Your task to perform on an android device: Search for the new ikea dresser Image 0: 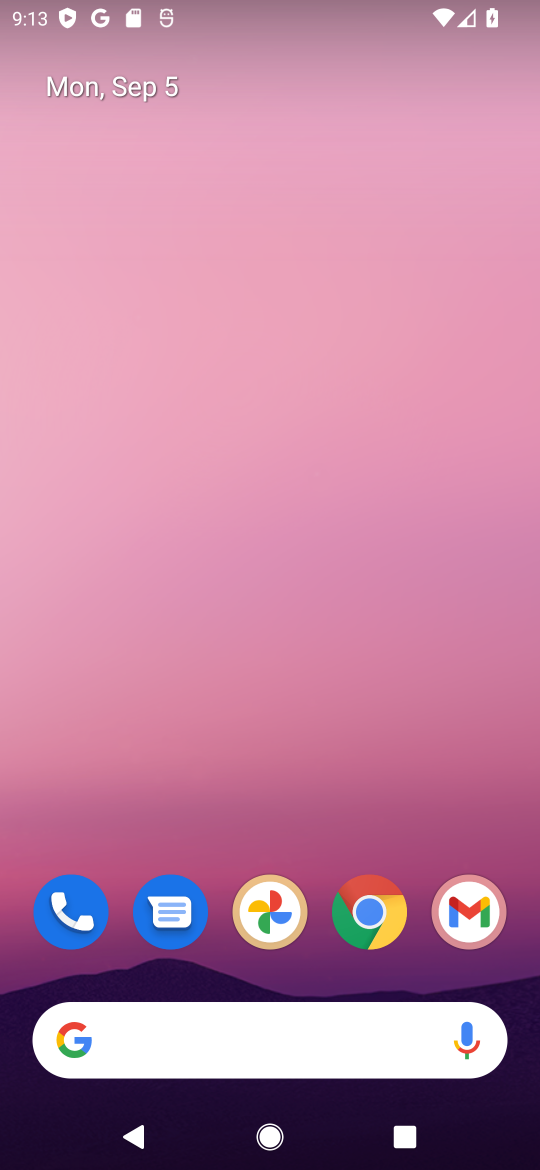
Step 0: click (368, 930)
Your task to perform on an android device: Search for the new ikea dresser Image 1: 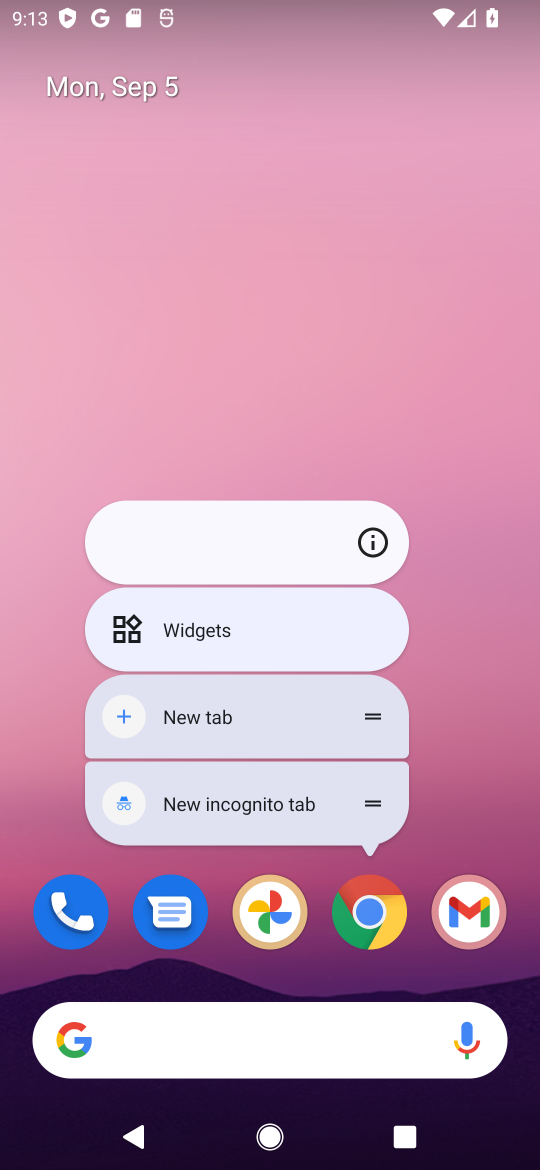
Step 1: click (381, 920)
Your task to perform on an android device: Search for the new ikea dresser Image 2: 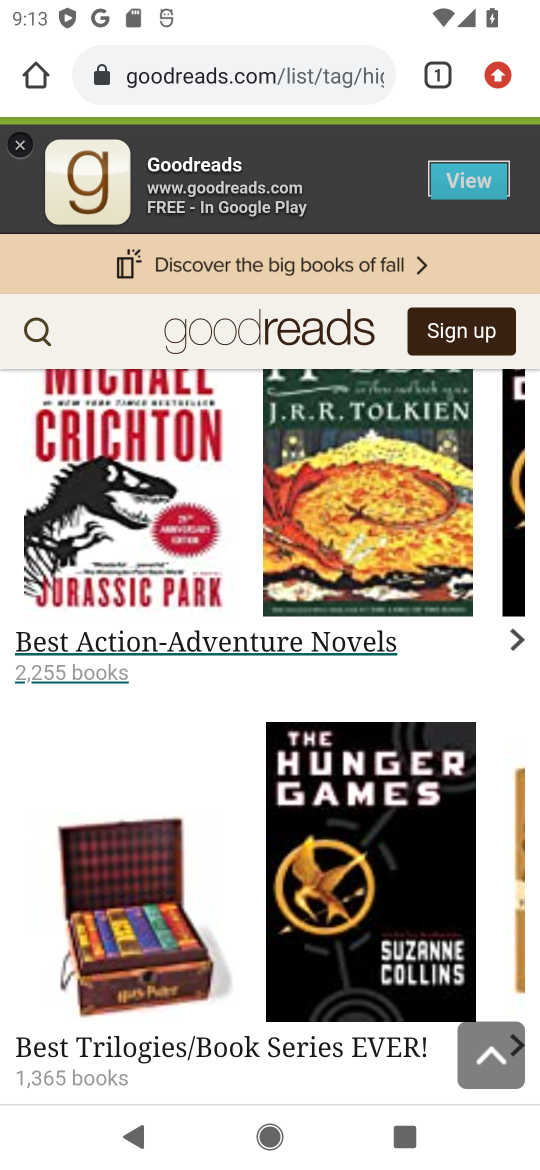
Step 2: click (263, 82)
Your task to perform on an android device: Search for the new ikea dresser Image 3: 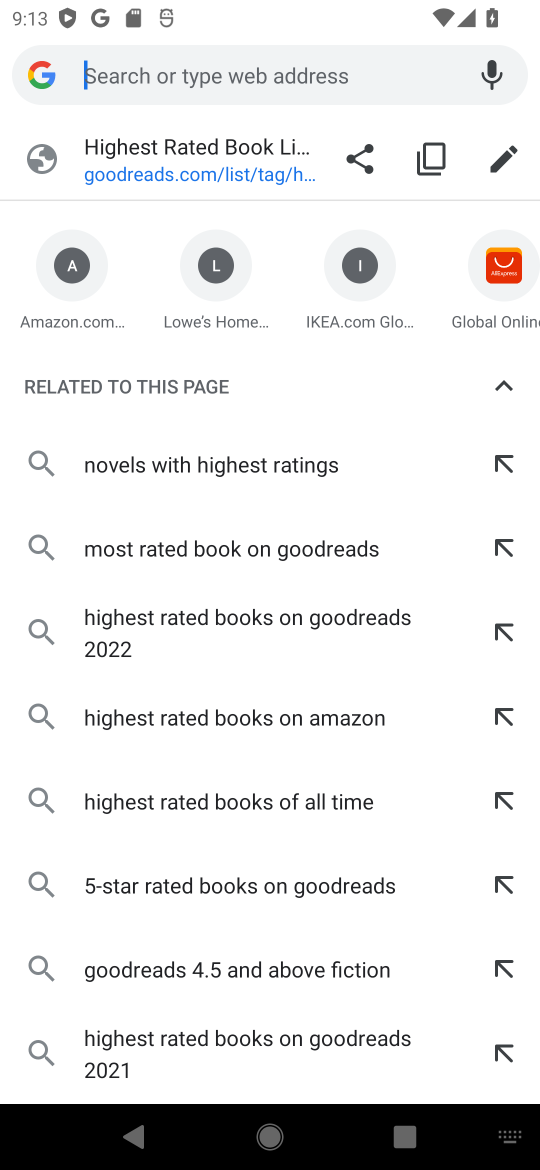
Step 3: type "new ikea dresser"
Your task to perform on an android device: Search for the new ikea dresser Image 4: 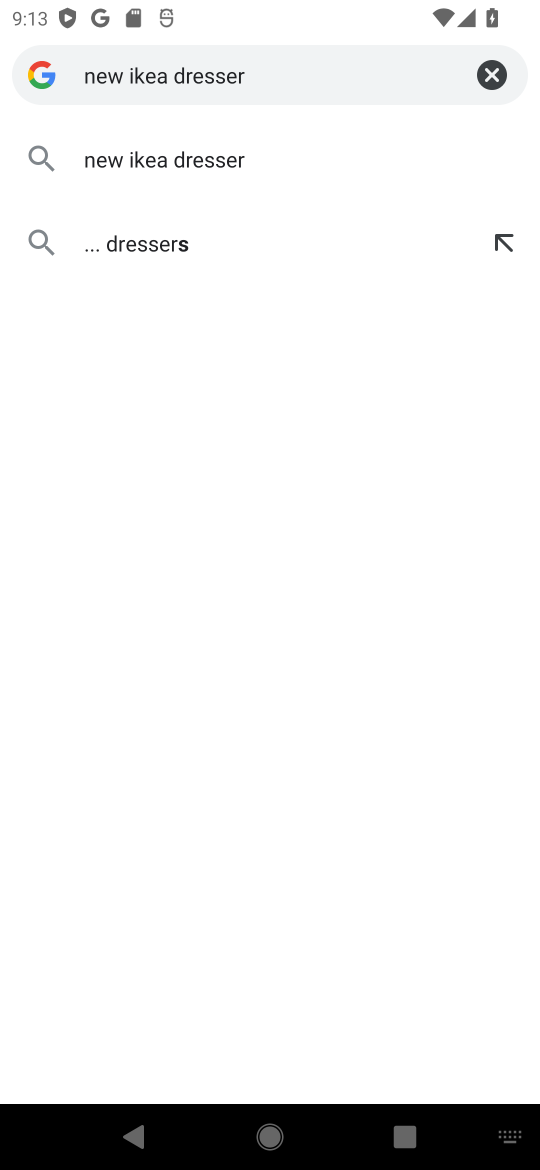
Step 4: press enter
Your task to perform on an android device: Search for the new ikea dresser Image 5: 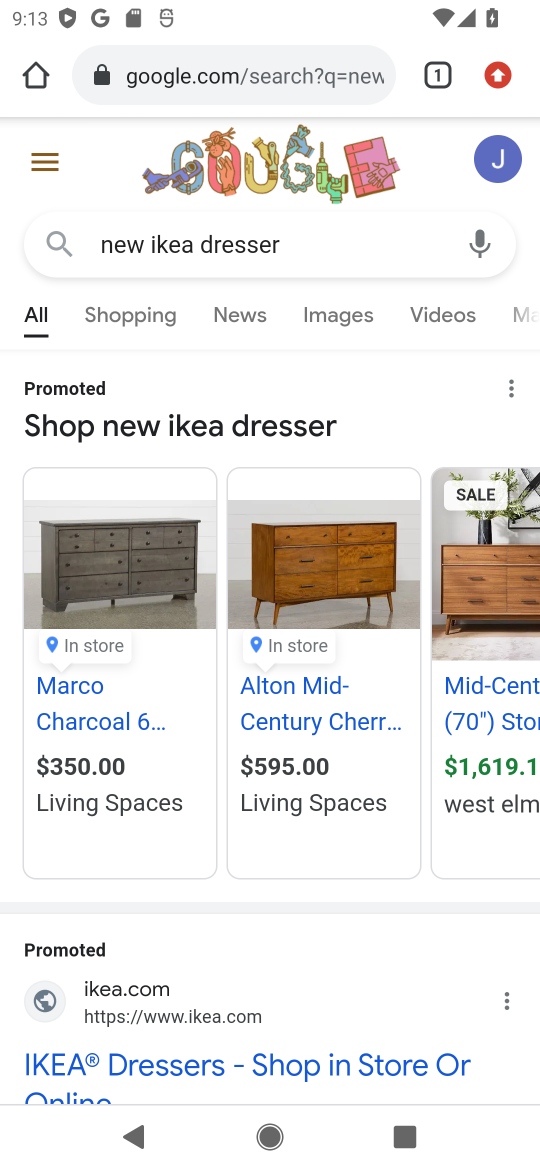
Step 5: drag from (390, 926) to (409, 681)
Your task to perform on an android device: Search for the new ikea dresser Image 6: 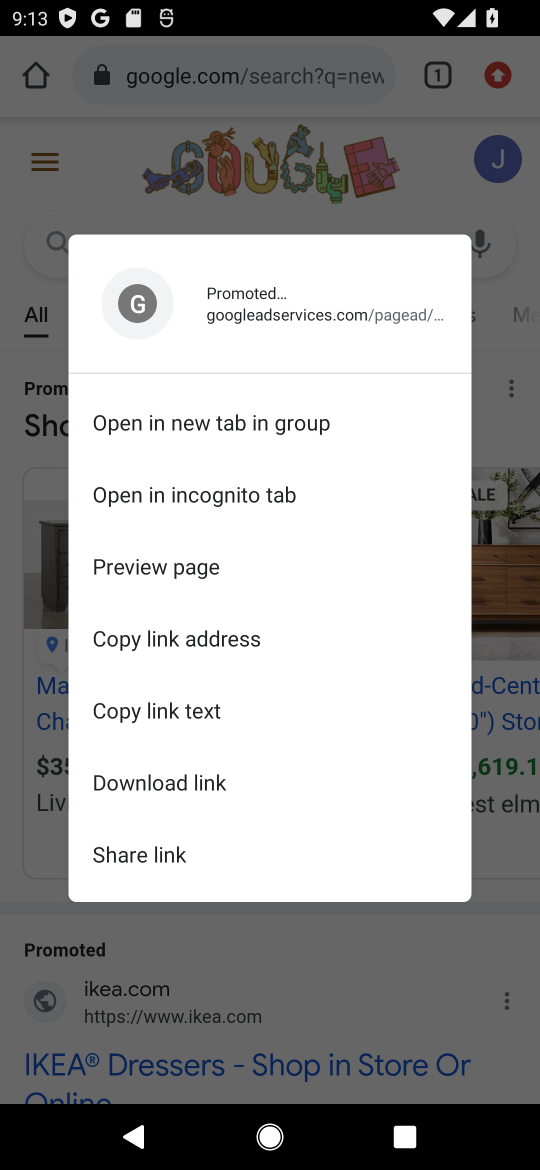
Step 6: click (480, 918)
Your task to perform on an android device: Search for the new ikea dresser Image 7: 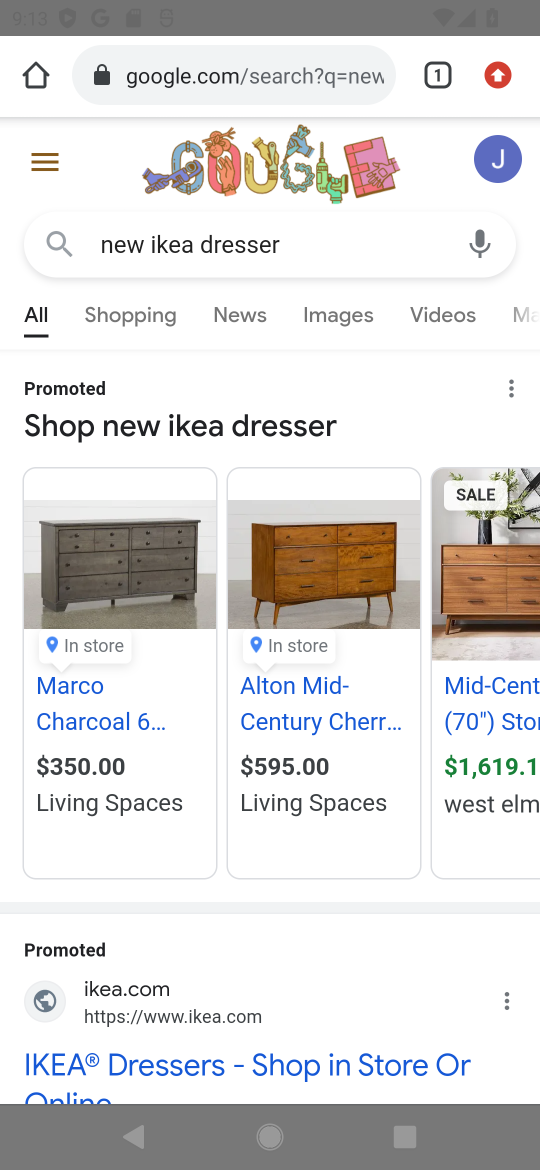
Step 7: drag from (429, 939) to (459, 380)
Your task to perform on an android device: Search for the new ikea dresser Image 8: 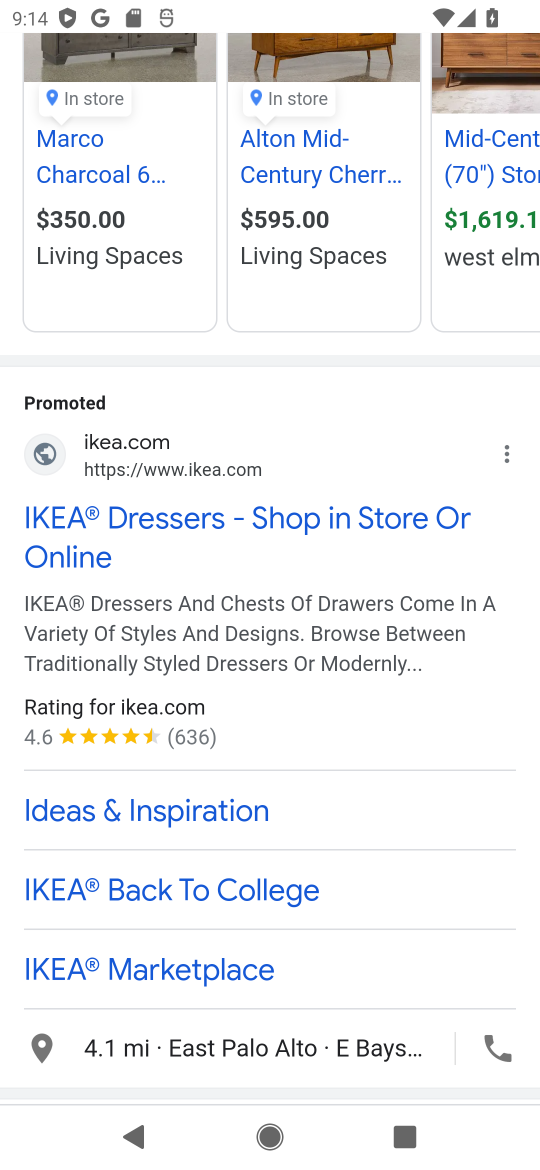
Step 8: click (327, 514)
Your task to perform on an android device: Search for the new ikea dresser Image 9: 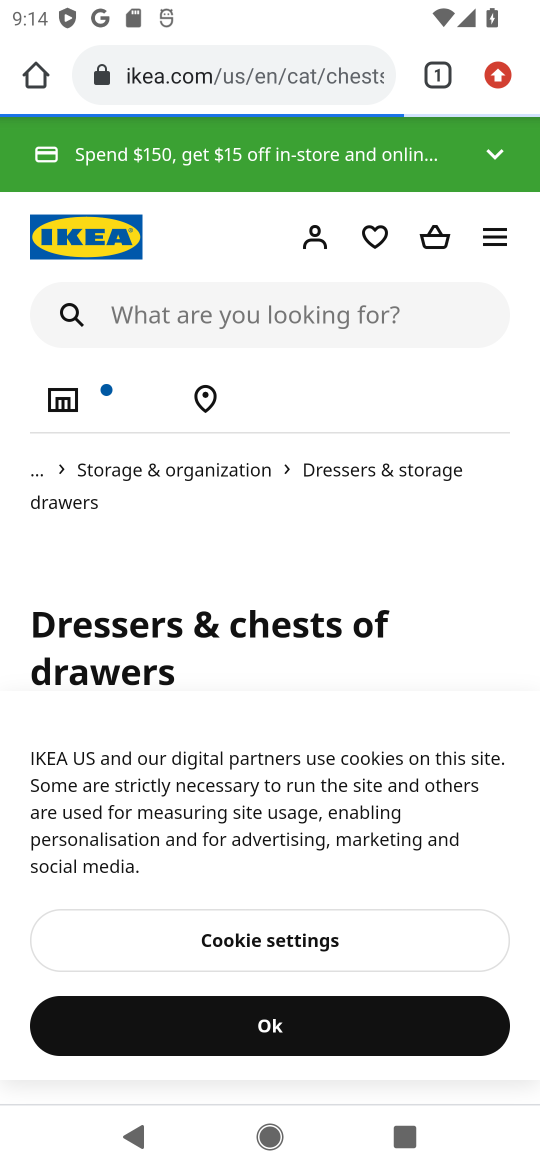
Step 9: drag from (291, 531) to (291, 404)
Your task to perform on an android device: Search for the new ikea dresser Image 10: 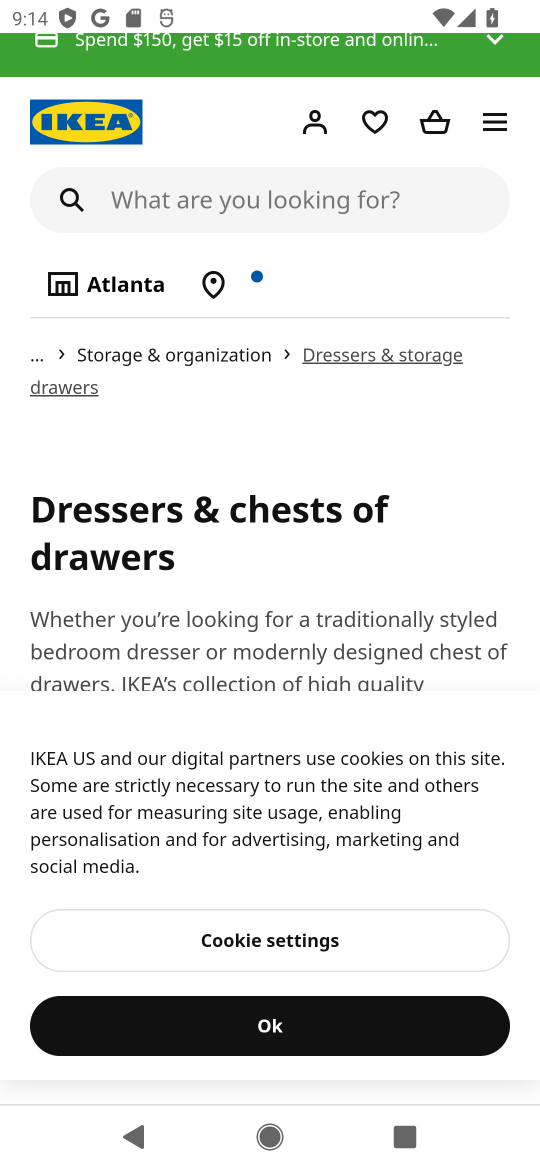
Step 10: drag from (300, 848) to (323, 427)
Your task to perform on an android device: Search for the new ikea dresser Image 11: 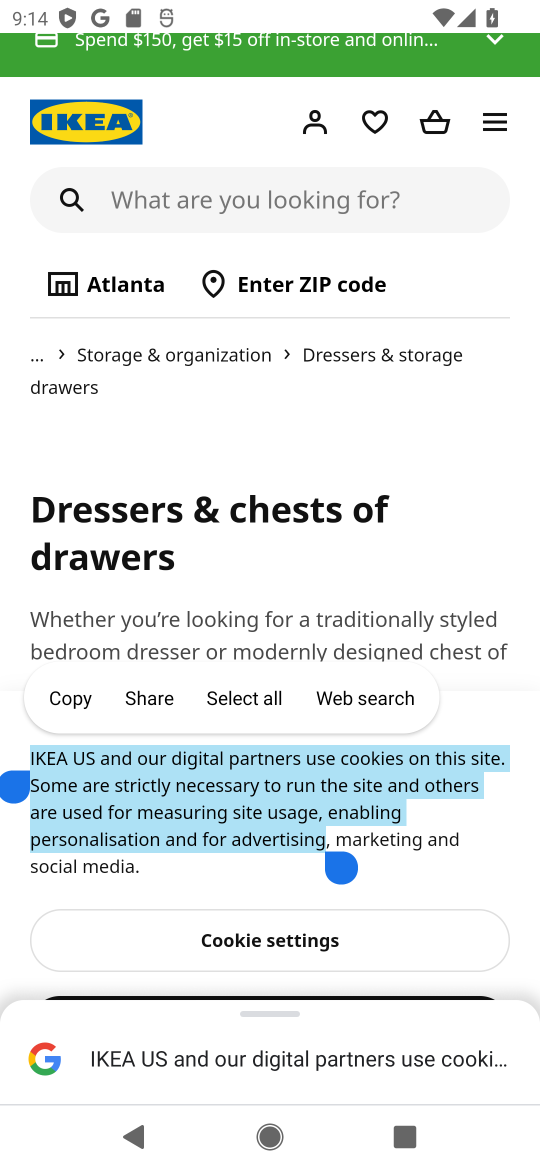
Step 11: click (397, 598)
Your task to perform on an android device: Search for the new ikea dresser Image 12: 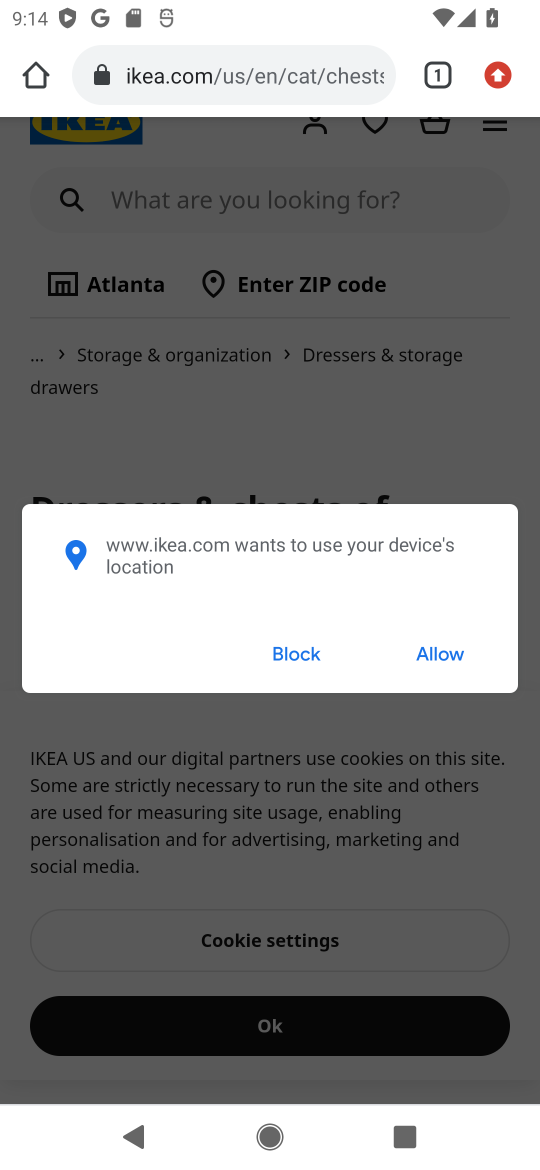
Step 12: click (444, 652)
Your task to perform on an android device: Search for the new ikea dresser Image 13: 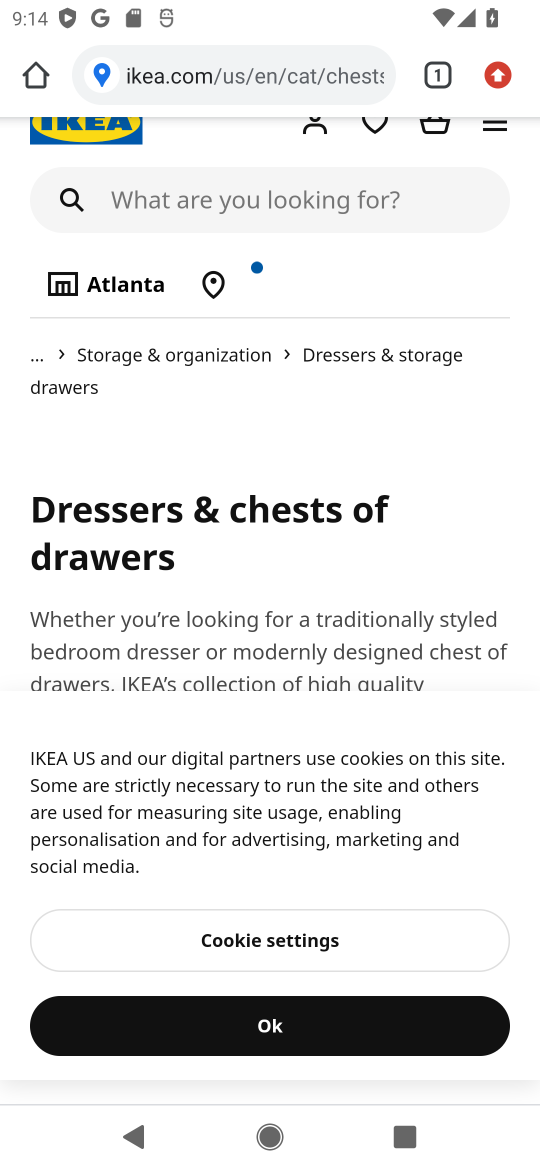
Step 13: drag from (424, 777) to (413, 422)
Your task to perform on an android device: Search for the new ikea dresser Image 14: 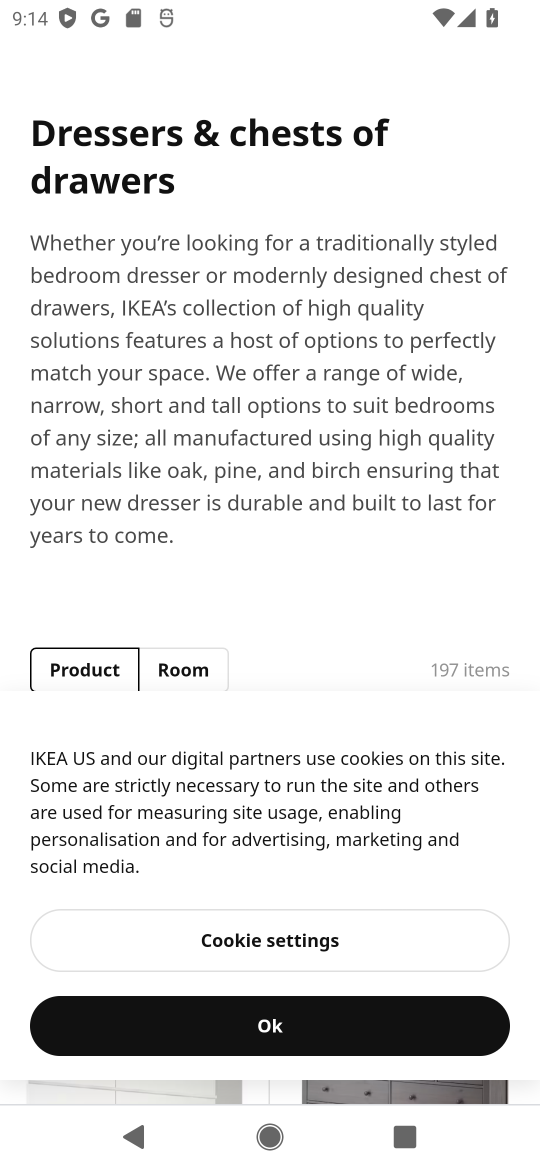
Step 14: drag from (378, 631) to (407, 432)
Your task to perform on an android device: Search for the new ikea dresser Image 15: 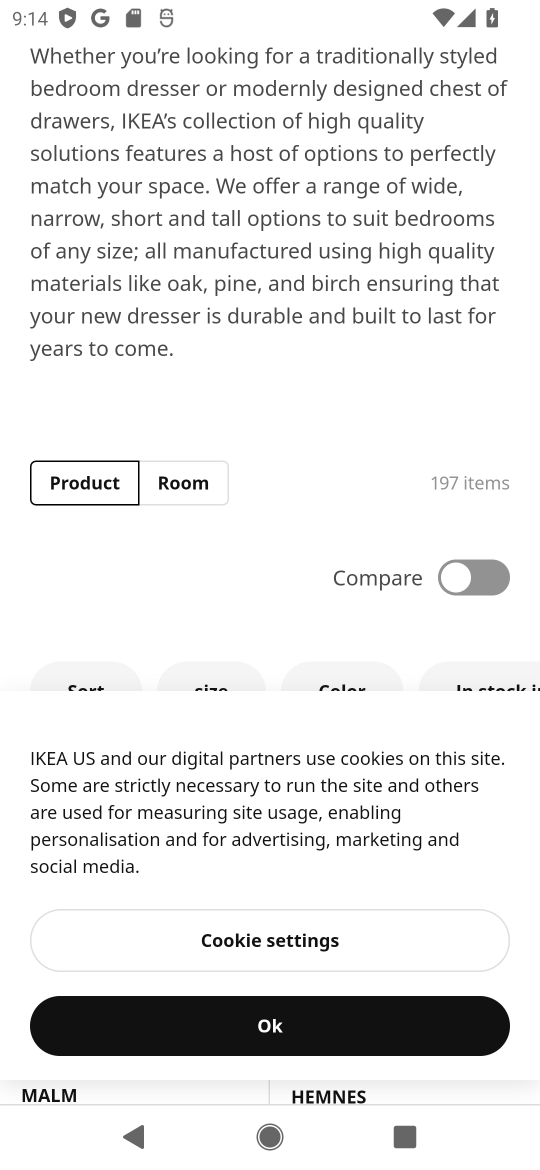
Step 15: click (366, 1014)
Your task to perform on an android device: Search for the new ikea dresser Image 16: 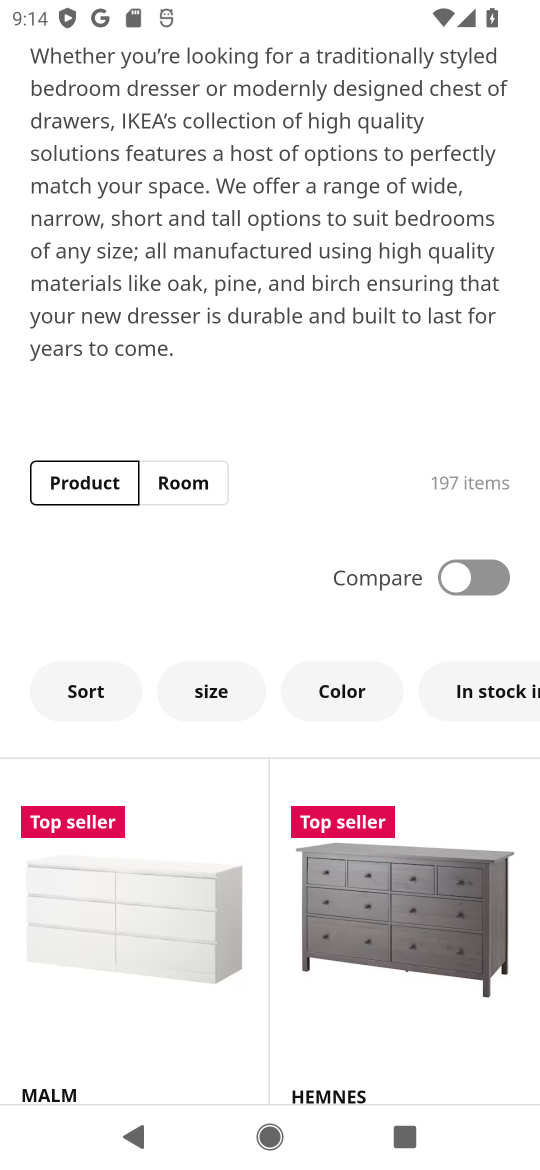
Step 16: task complete